Your task to perform on an android device: Search for "alienware area 51" on target.com, select the first entry, add it to the cart, then select checkout. Image 0: 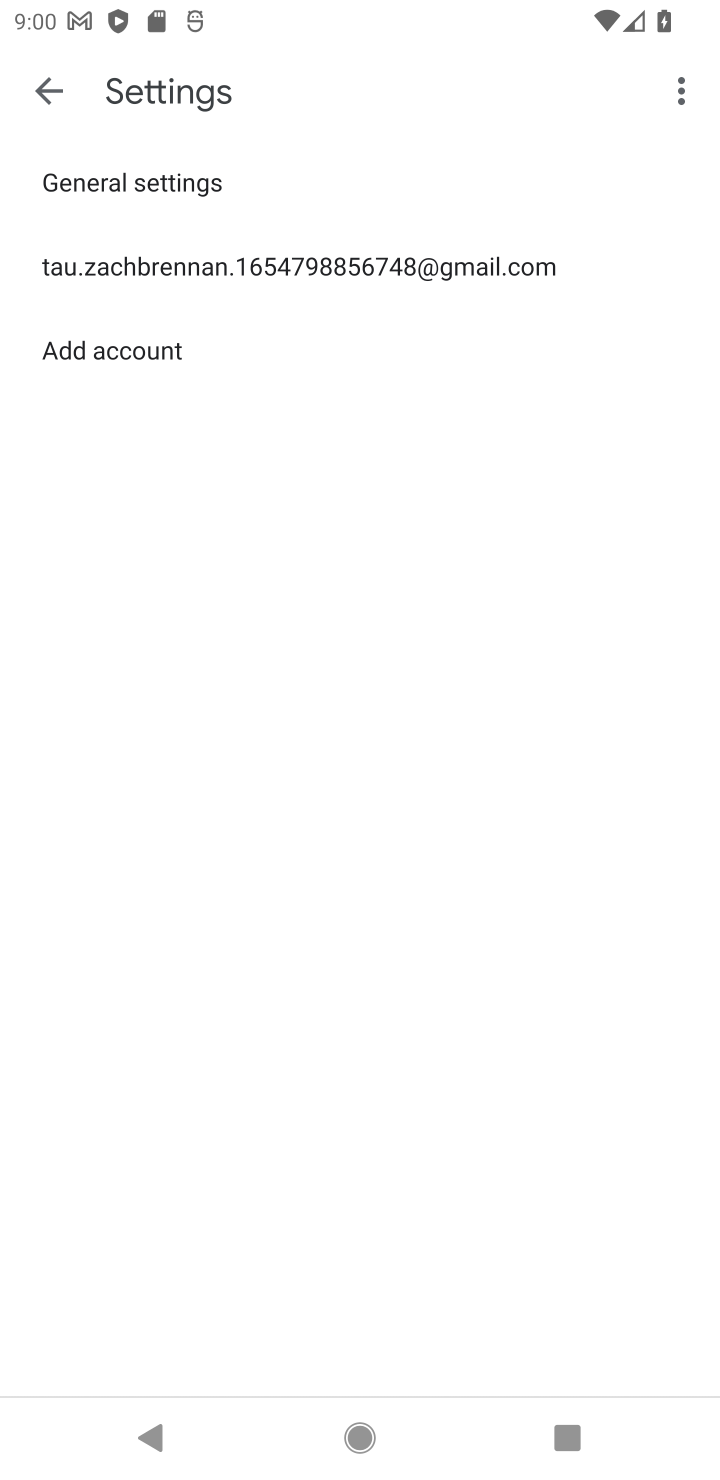
Step 0: press home button
Your task to perform on an android device: Search for "alienware area 51" on target.com, select the first entry, add it to the cart, then select checkout. Image 1: 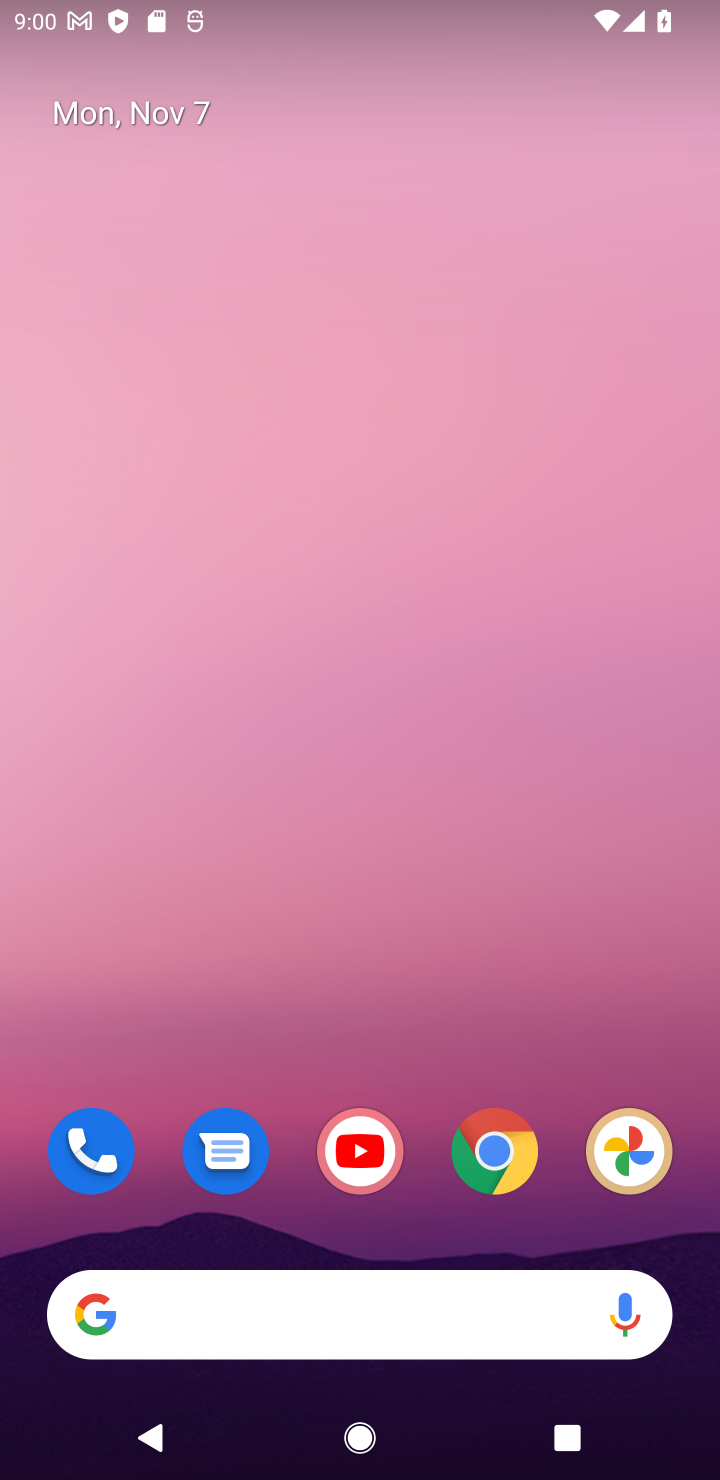
Step 1: click (506, 1146)
Your task to perform on an android device: Search for "alienware area 51" on target.com, select the first entry, add it to the cart, then select checkout. Image 2: 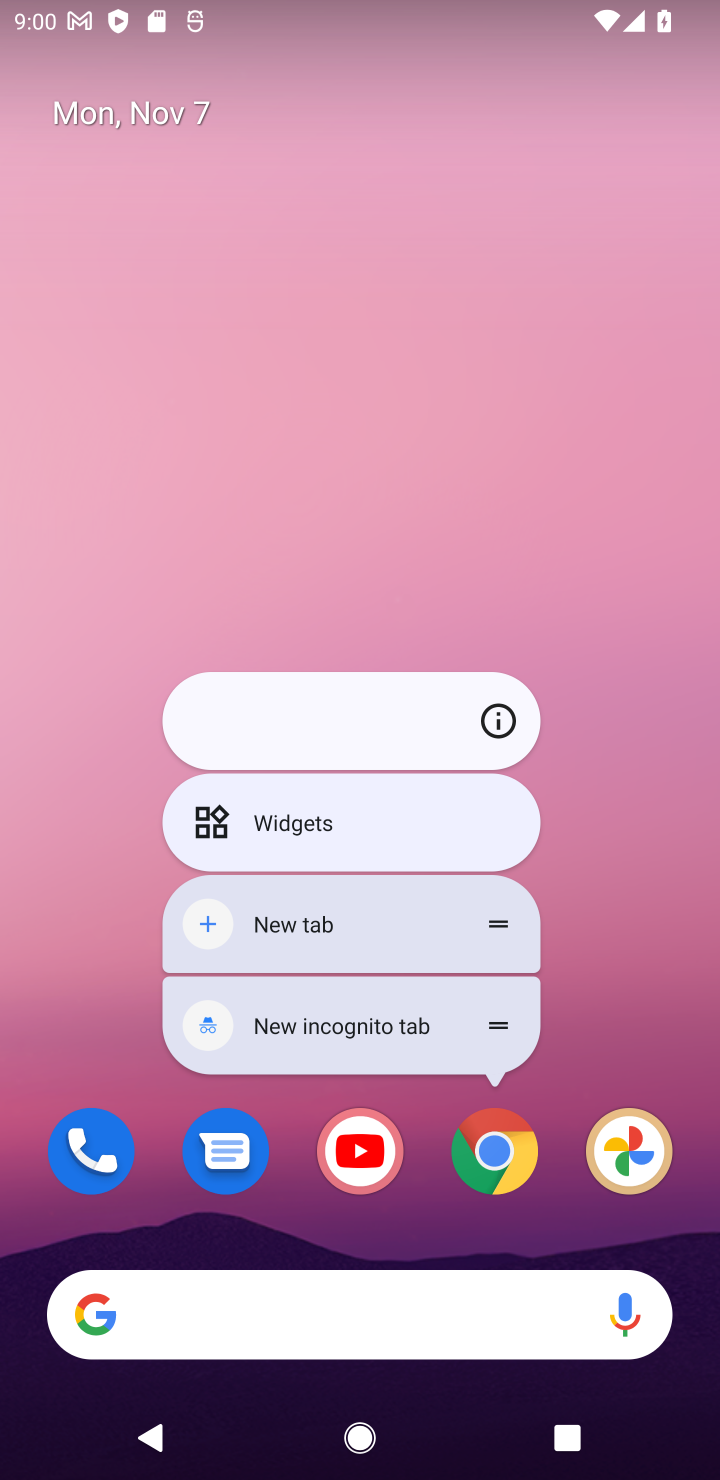
Step 2: click (506, 1149)
Your task to perform on an android device: Search for "alienware area 51" on target.com, select the first entry, add it to the cart, then select checkout. Image 3: 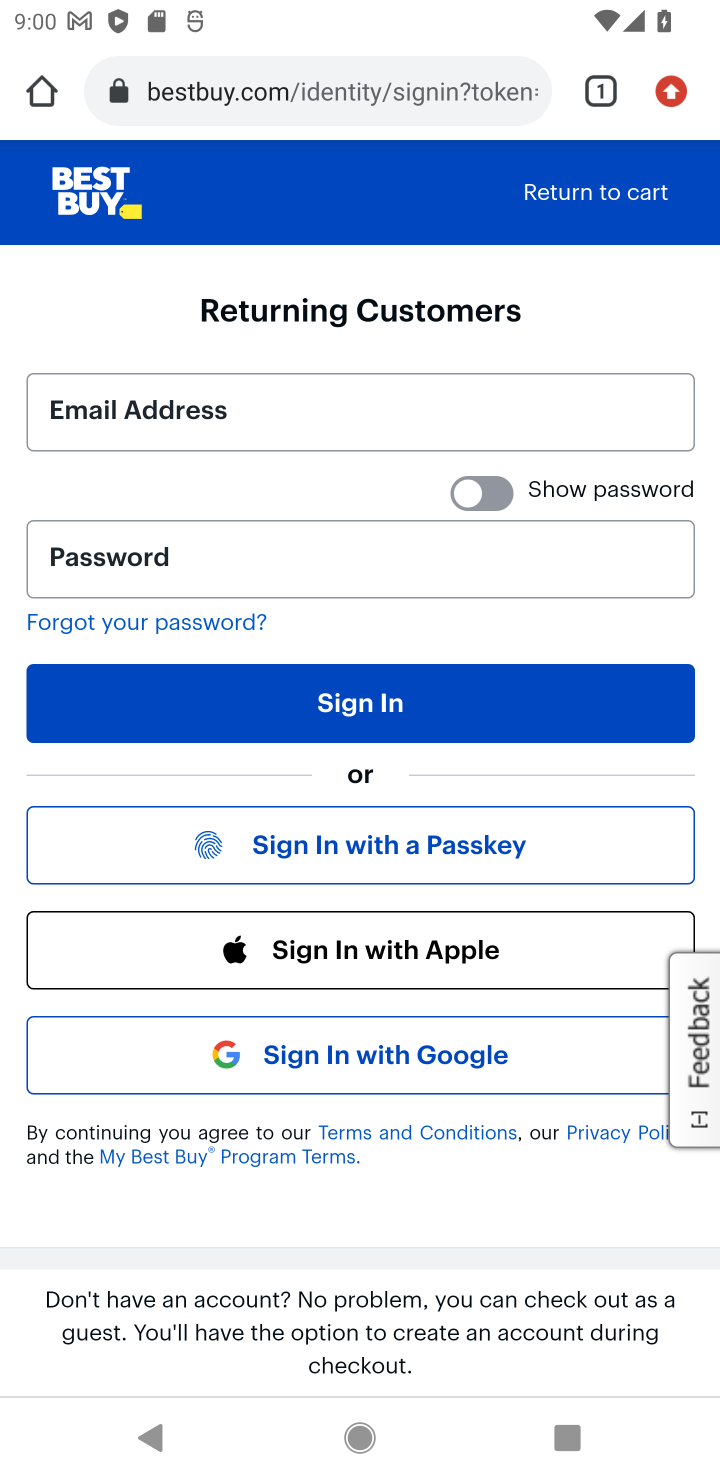
Step 3: click (454, 87)
Your task to perform on an android device: Search for "alienware area 51" on target.com, select the first entry, add it to the cart, then select checkout. Image 4: 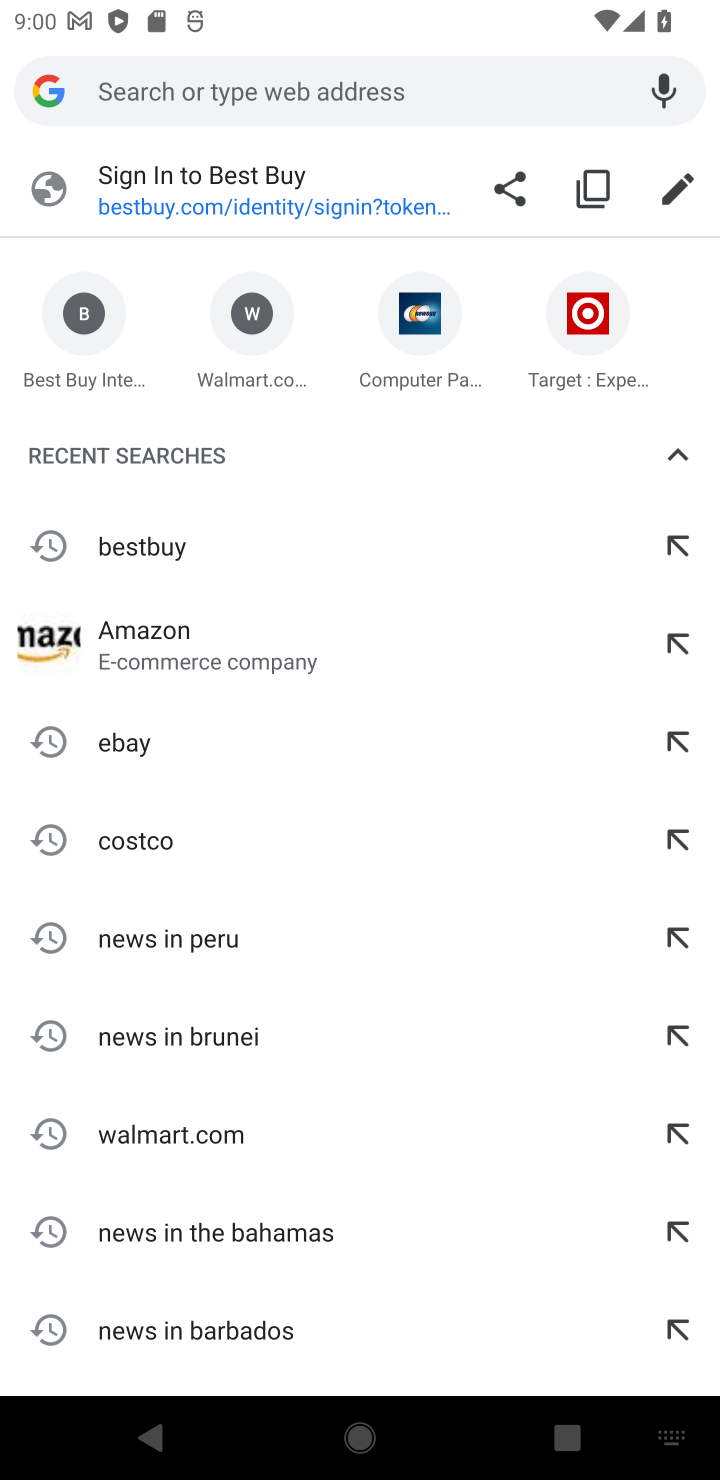
Step 4: click (586, 322)
Your task to perform on an android device: Search for "alienware area 51" on target.com, select the first entry, add it to the cart, then select checkout. Image 5: 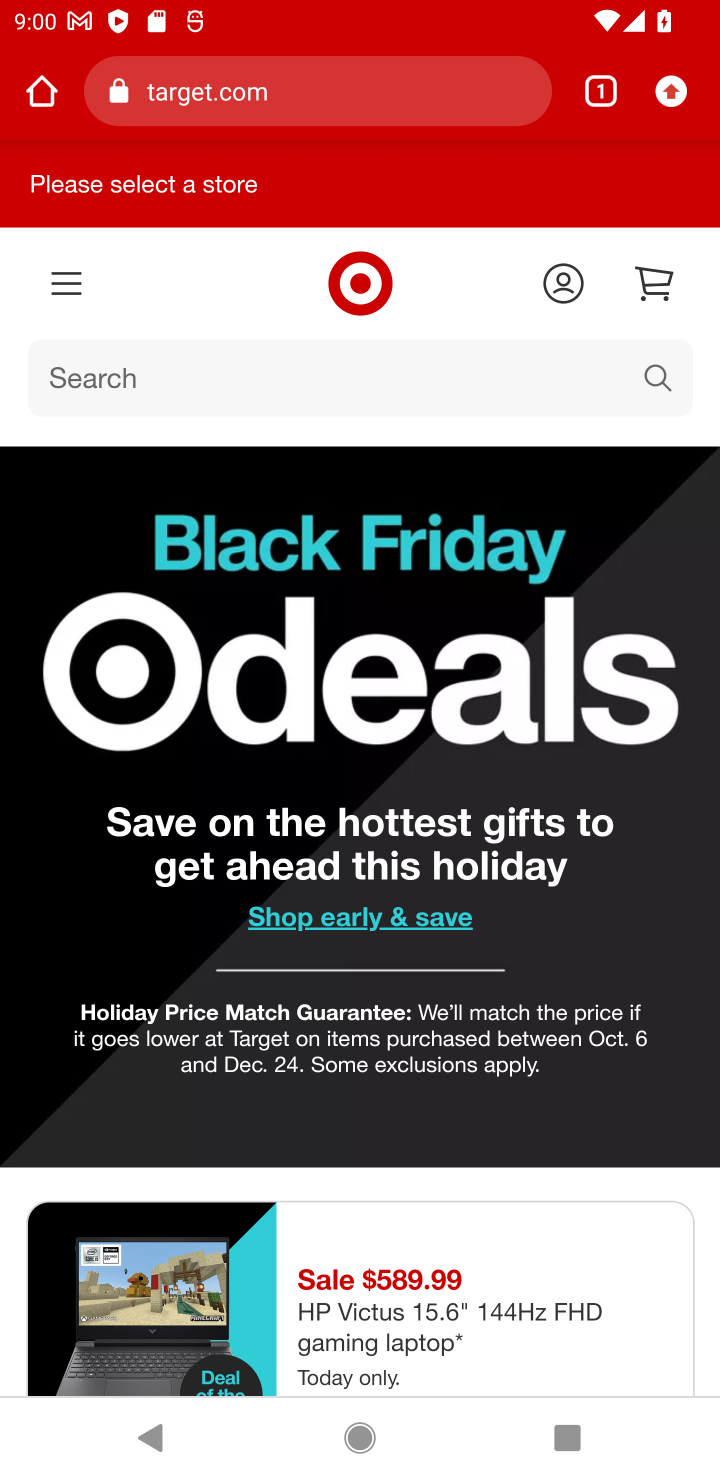
Step 5: click (244, 361)
Your task to perform on an android device: Search for "alienware area 51" on target.com, select the first entry, add it to the cart, then select checkout. Image 6: 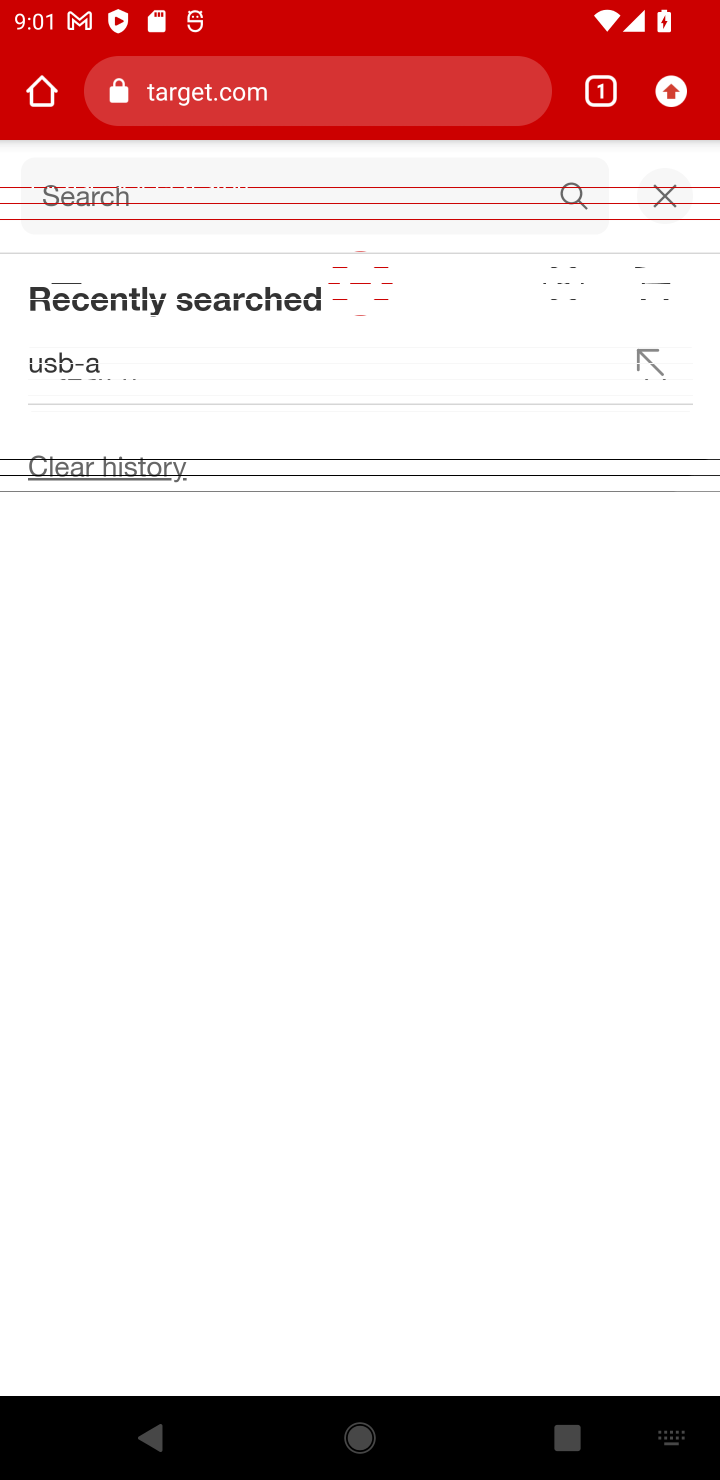
Step 6: type "alienware area 51"
Your task to perform on an android device: Search for "alienware area 51" on target.com, select the first entry, add it to the cart, then select checkout. Image 7: 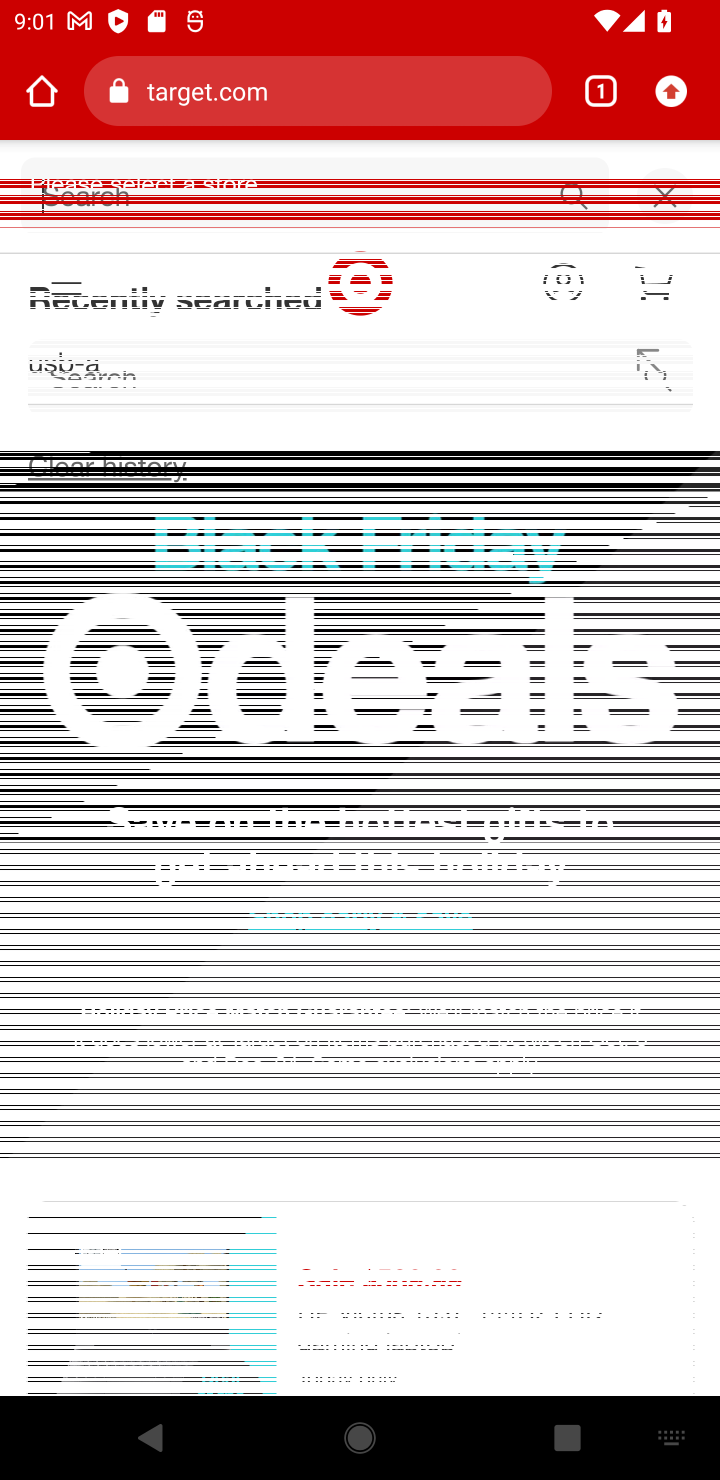
Step 7: press enter
Your task to perform on an android device: Search for "alienware area 51" on target.com, select the first entry, add it to the cart, then select checkout. Image 8: 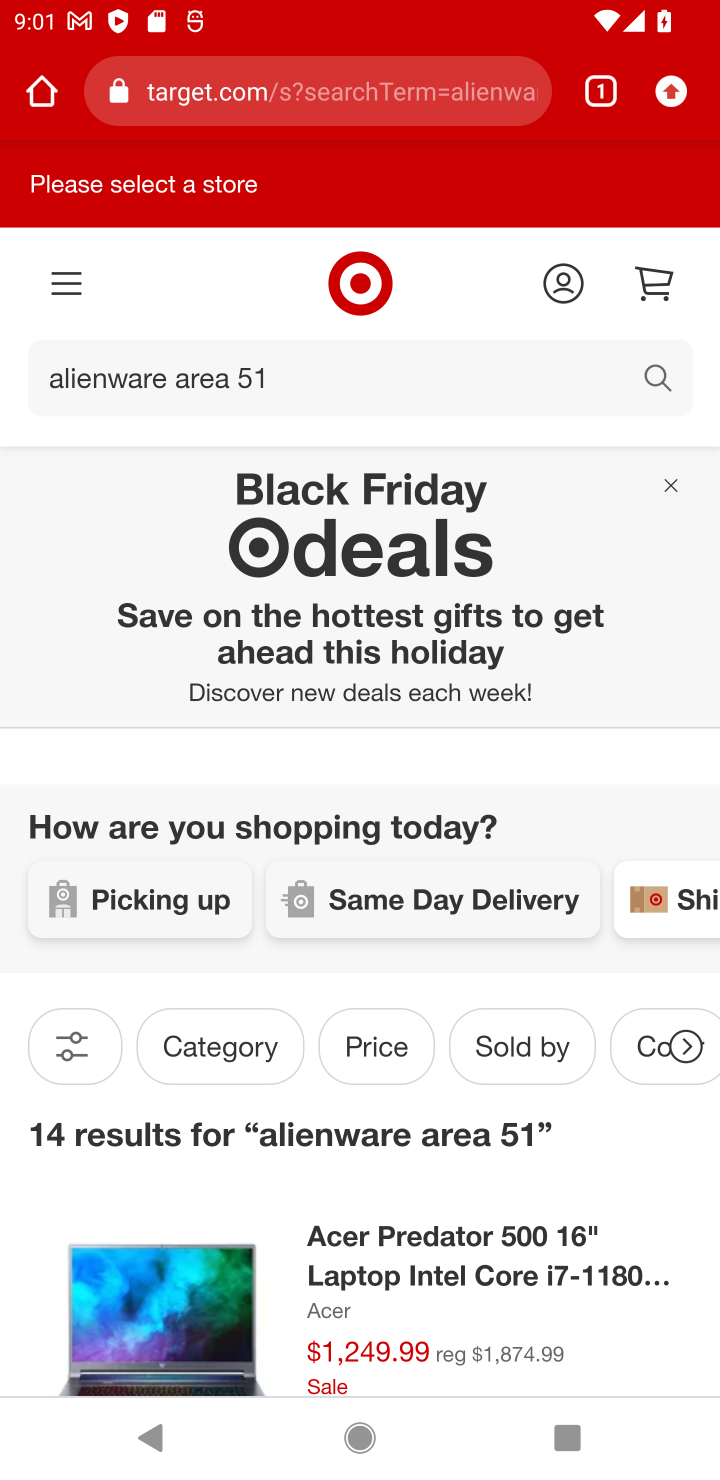
Step 8: task complete